Your task to perform on an android device: Check the news Image 0: 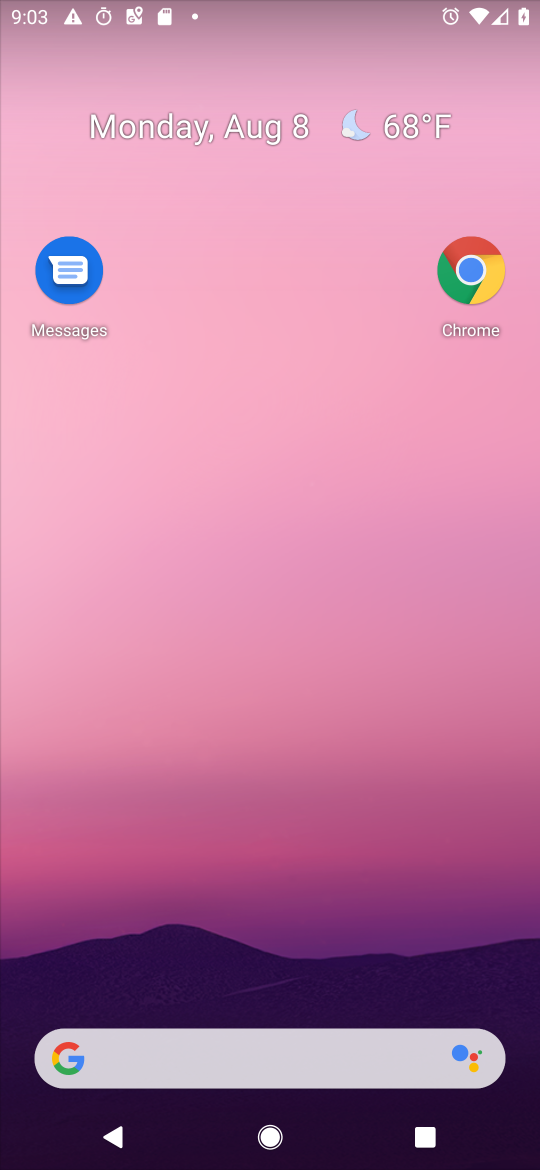
Step 0: drag from (285, 942) to (296, 58)
Your task to perform on an android device: Check the news Image 1: 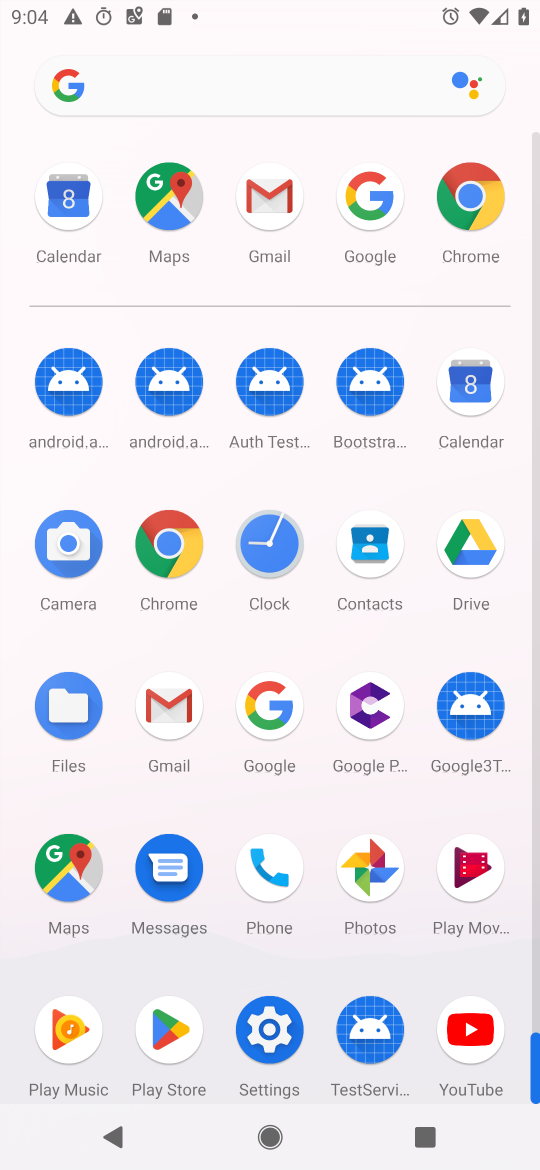
Step 1: click (155, 89)
Your task to perform on an android device: Check the news Image 2: 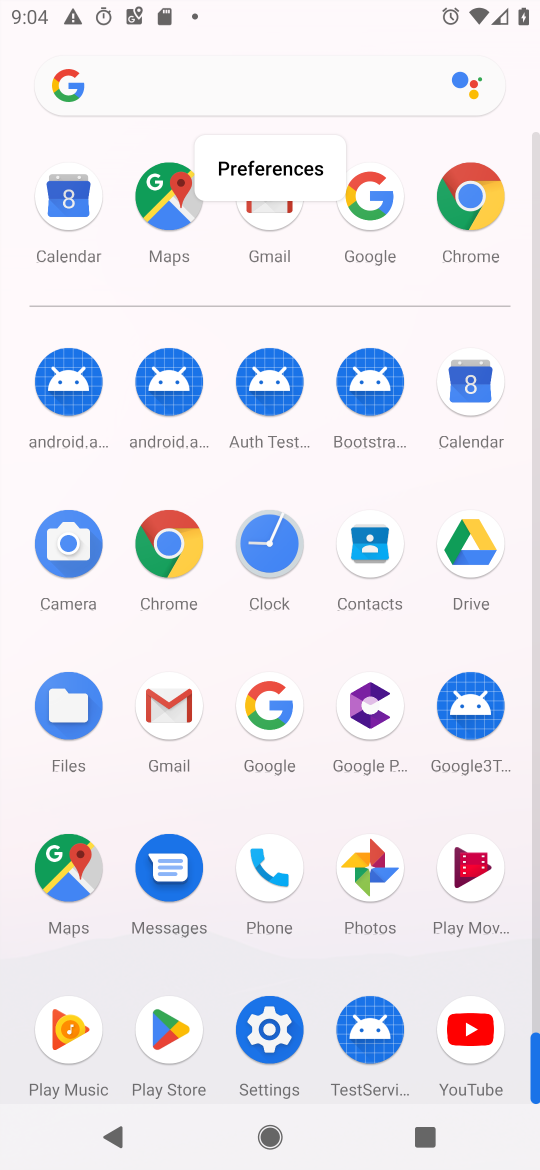
Step 2: click (179, 92)
Your task to perform on an android device: Check the news Image 3: 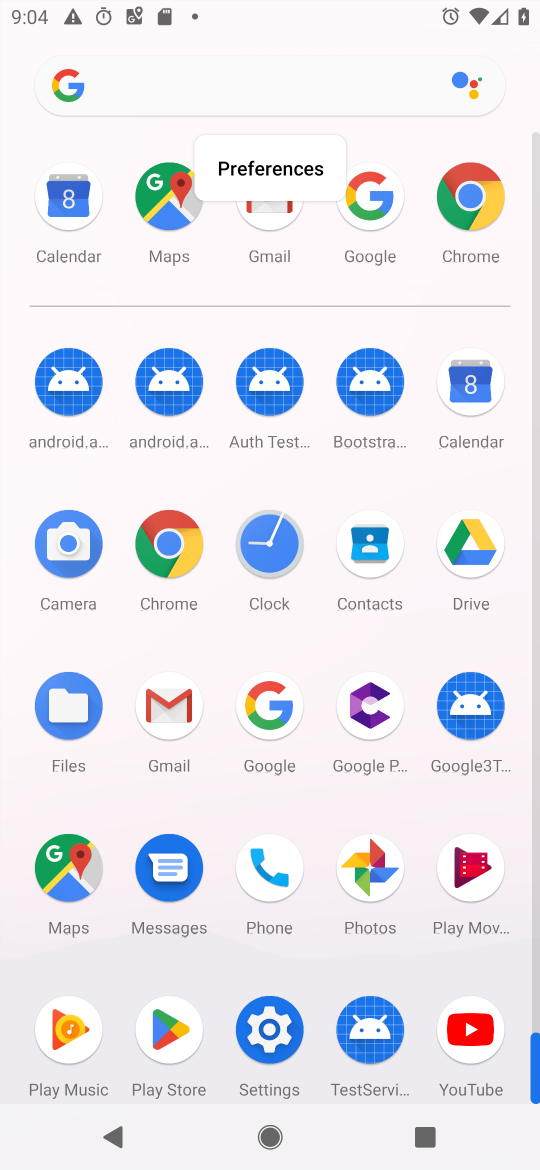
Step 3: type "news"
Your task to perform on an android device: Check the news Image 4: 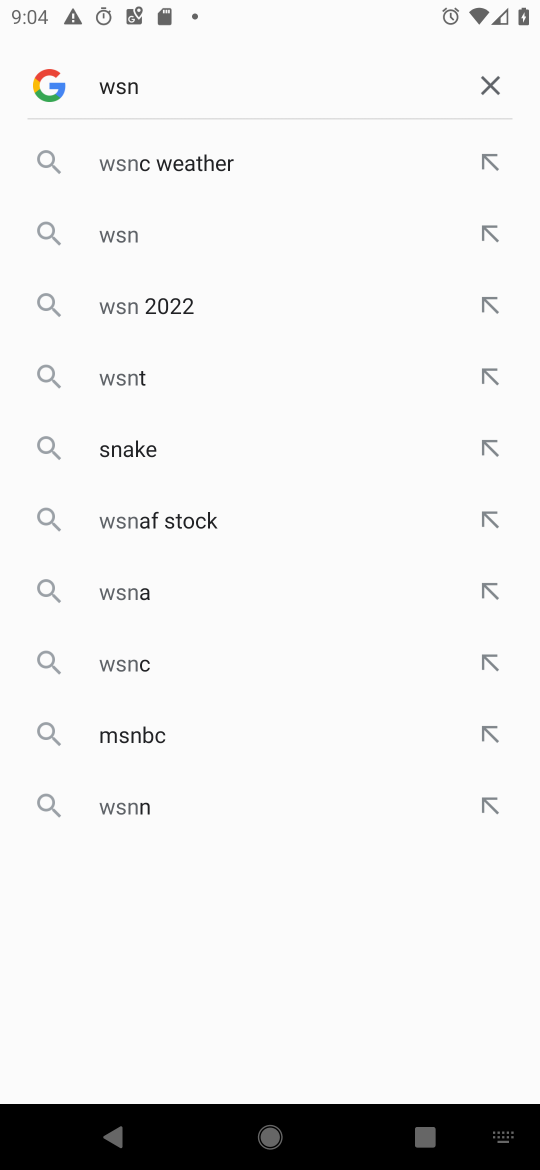
Step 4: click (156, 90)
Your task to perform on an android device: Check the news Image 5: 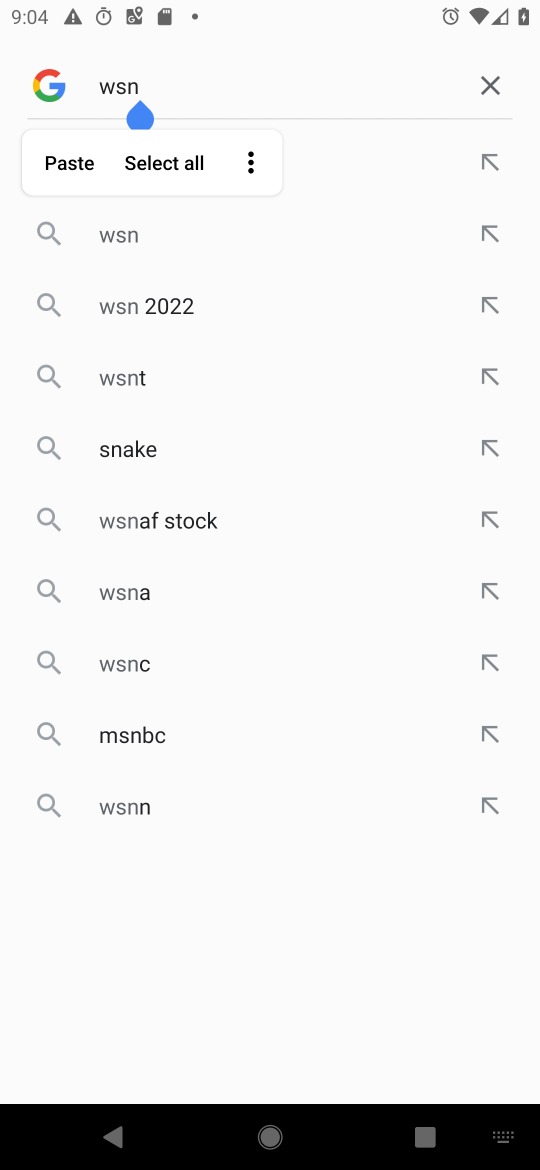
Step 5: click (477, 79)
Your task to perform on an android device: Check the news Image 6: 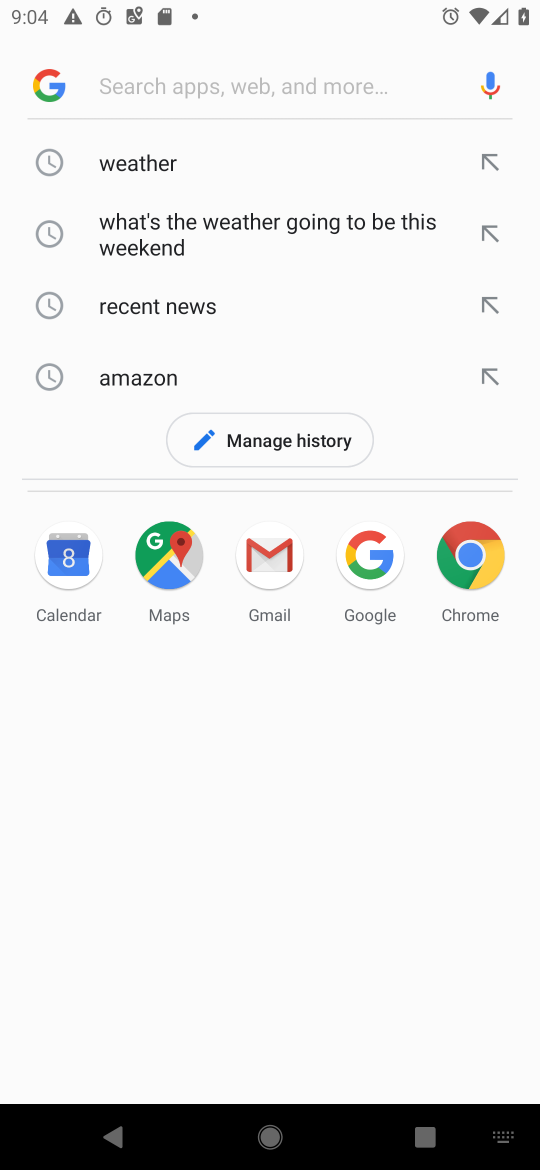
Step 6: click (159, 96)
Your task to perform on an android device: Check the news Image 7: 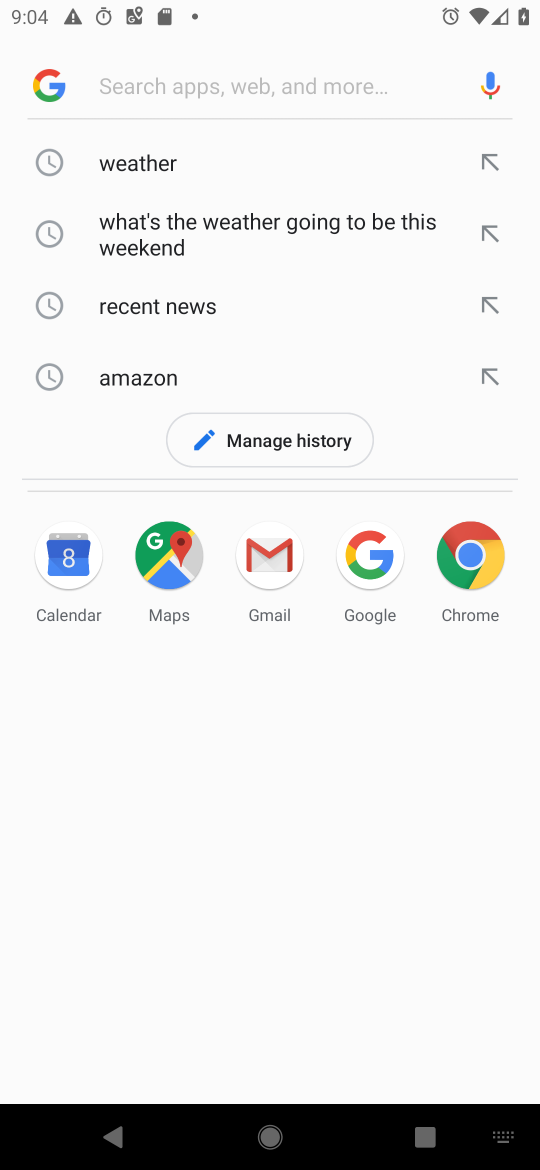
Step 7: type "news"
Your task to perform on an android device: Check the news Image 8: 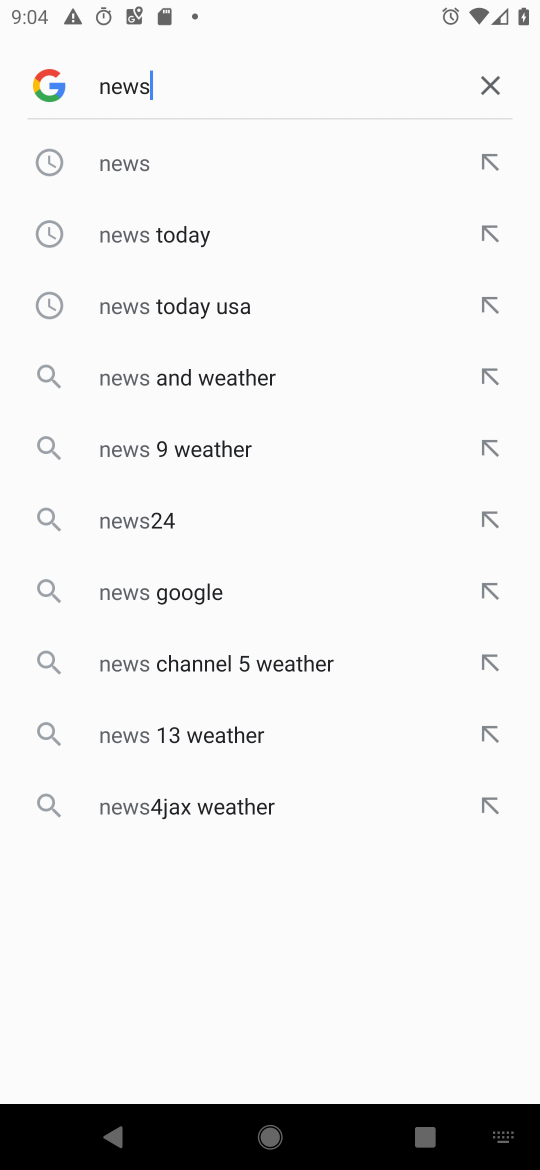
Step 8: click (195, 174)
Your task to perform on an android device: Check the news Image 9: 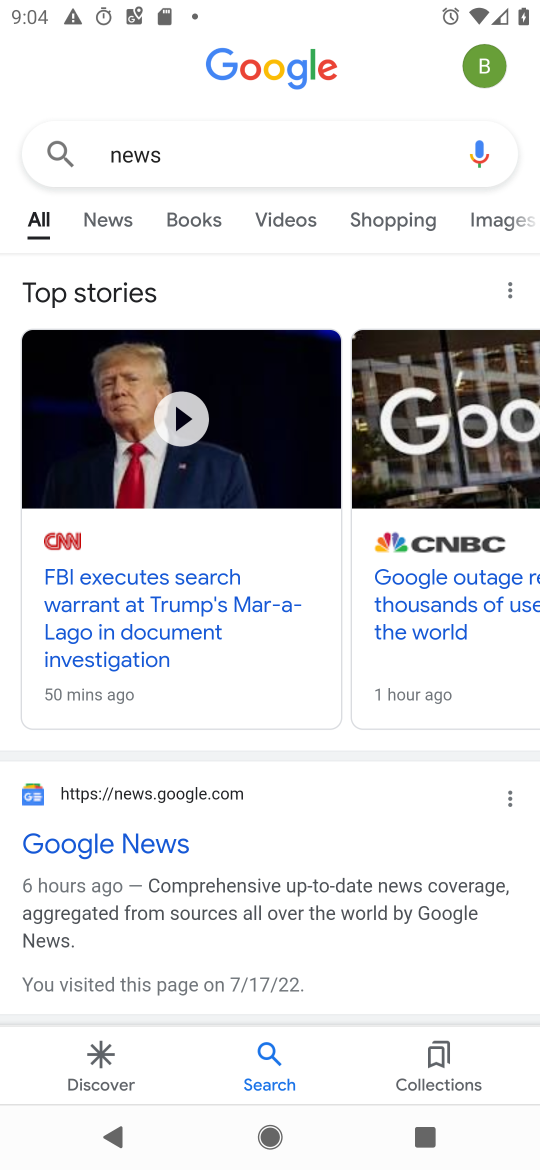
Step 9: drag from (279, 908) to (339, 579)
Your task to perform on an android device: Check the news Image 10: 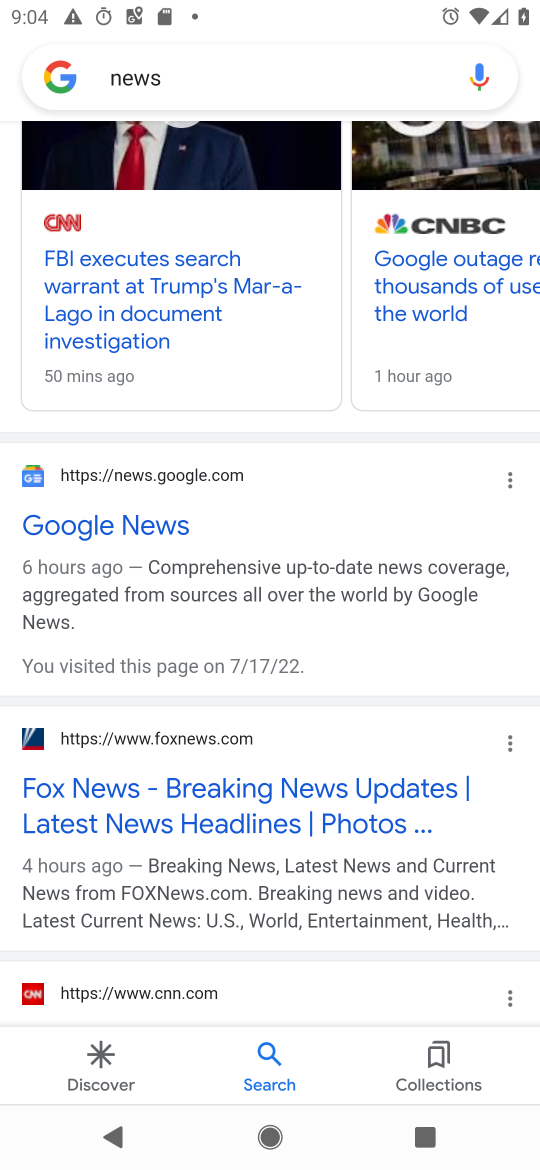
Step 10: drag from (224, 765) to (418, 1161)
Your task to perform on an android device: Check the news Image 11: 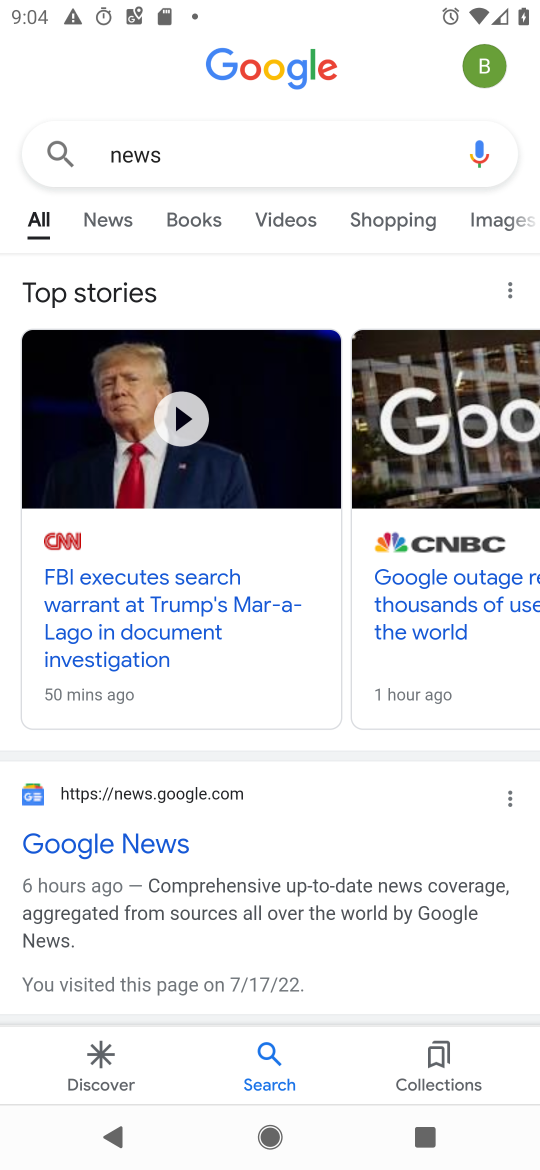
Step 11: click (103, 843)
Your task to perform on an android device: Check the news Image 12: 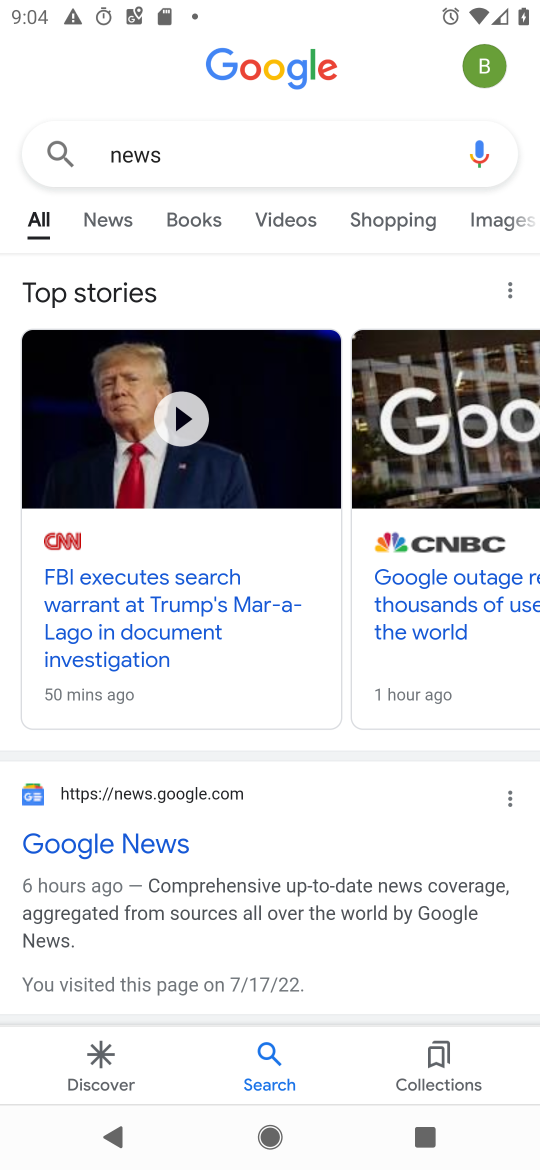
Step 12: task complete